Your task to perform on an android device: choose inbox layout in the gmail app Image 0: 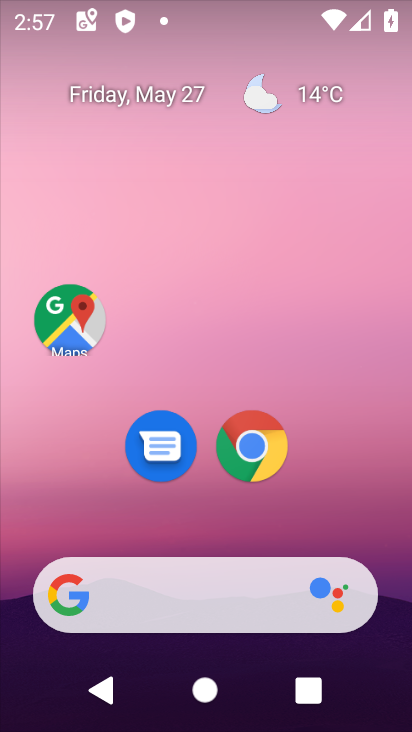
Step 0: press home button
Your task to perform on an android device: choose inbox layout in the gmail app Image 1: 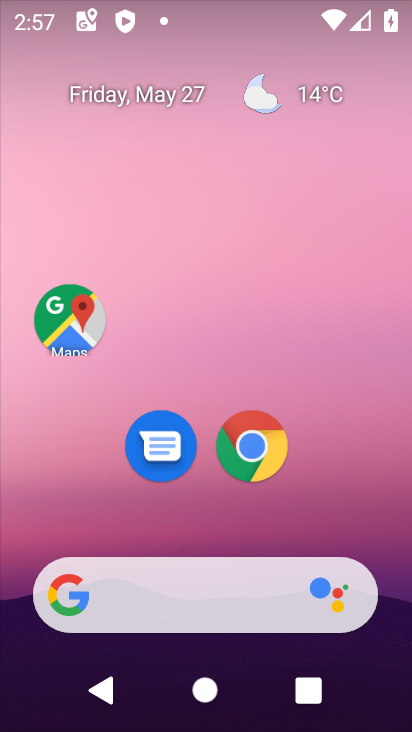
Step 1: drag from (186, 581) to (318, 46)
Your task to perform on an android device: choose inbox layout in the gmail app Image 2: 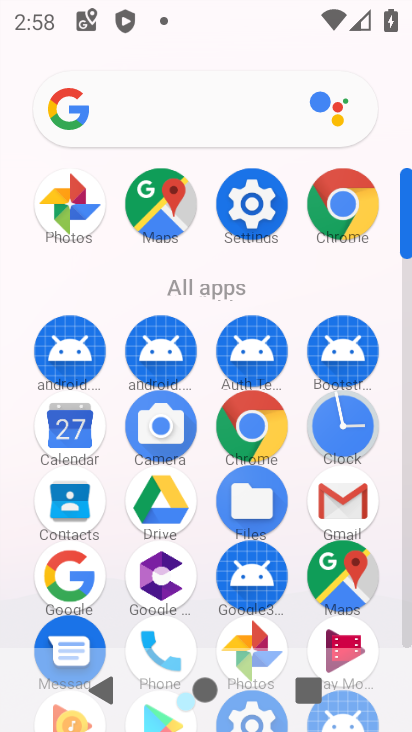
Step 2: click (347, 511)
Your task to perform on an android device: choose inbox layout in the gmail app Image 3: 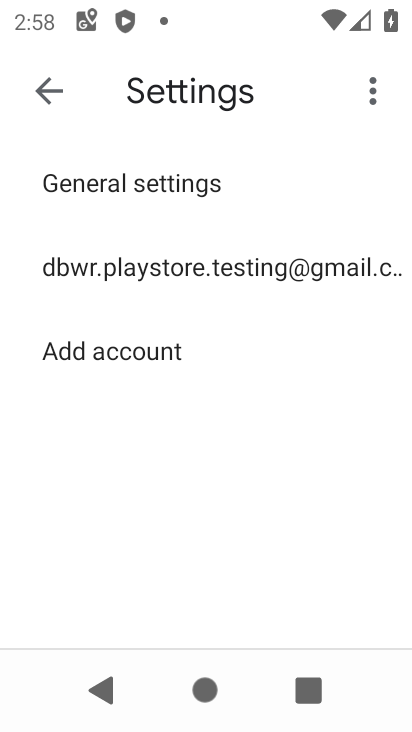
Step 3: click (273, 271)
Your task to perform on an android device: choose inbox layout in the gmail app Image 4: 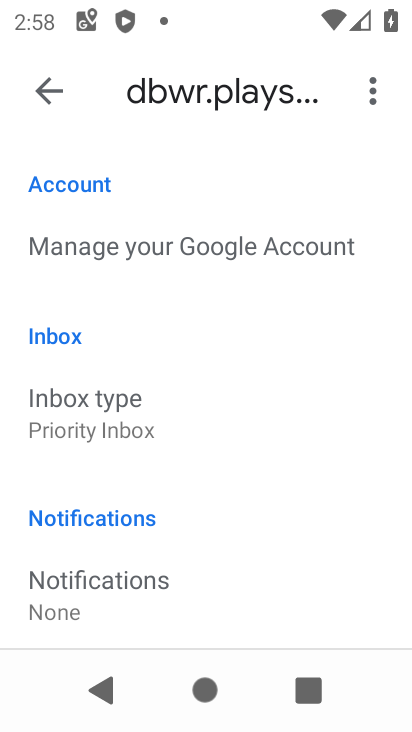
Step 4: drag from (142, 494) to (225, 312)
Your task to perform on an android device: choose inbox layout in the gmail app Image 5: 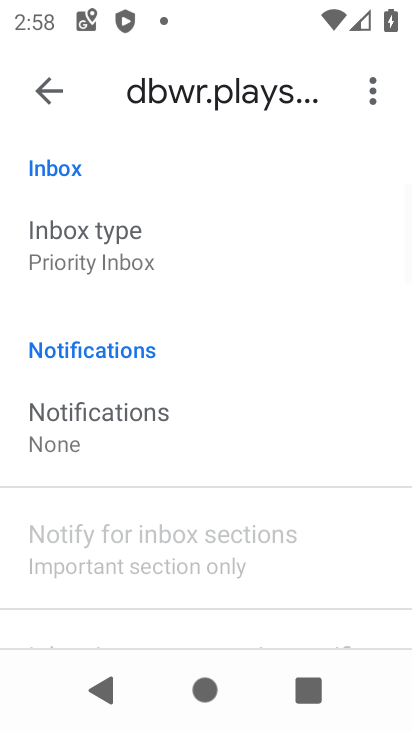
Step 5: click (103, 242)
Your task to perform on an android device: choose inbox layout in the gmail app Image 6: 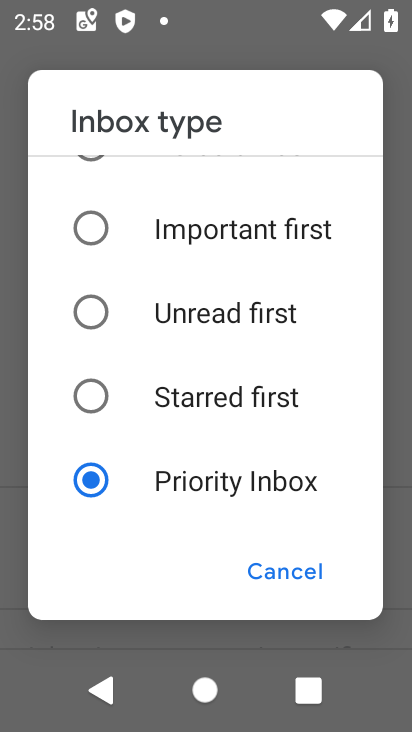
Step 6: click (98, 386)
Your task to perform on an android device: choose inbox layout in the gmail app Image 7: 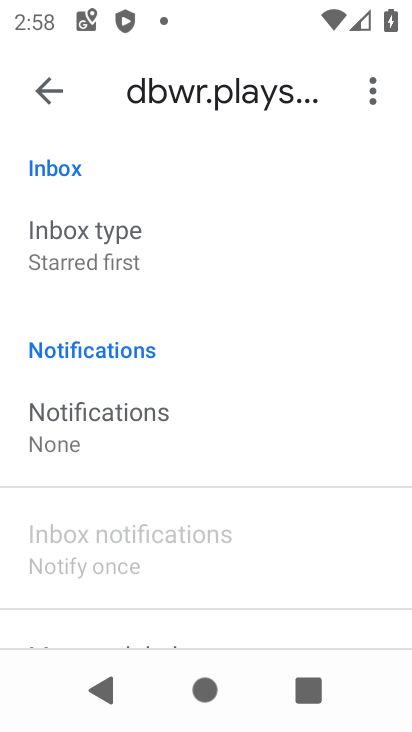
Step 7: task complete